Your task to perform on an android device: turn off airplane mode Image 0: 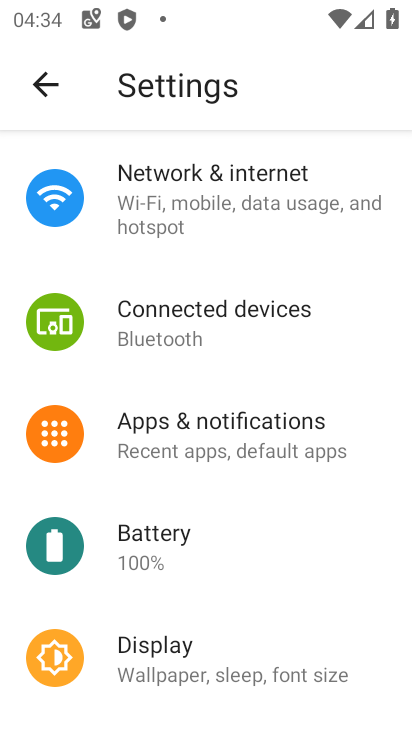
Step 0: click (252, 181)
Your task to perform on an android device: turn off airplane mode Image 1: 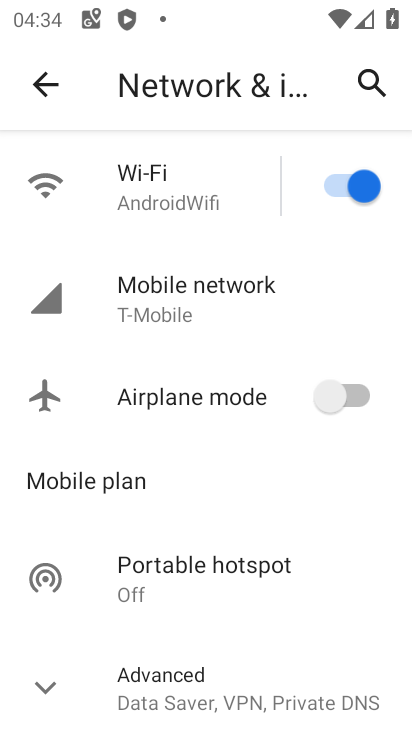
Step 1: task complete